Your task to perform on an android device: show emergency info Image 0: 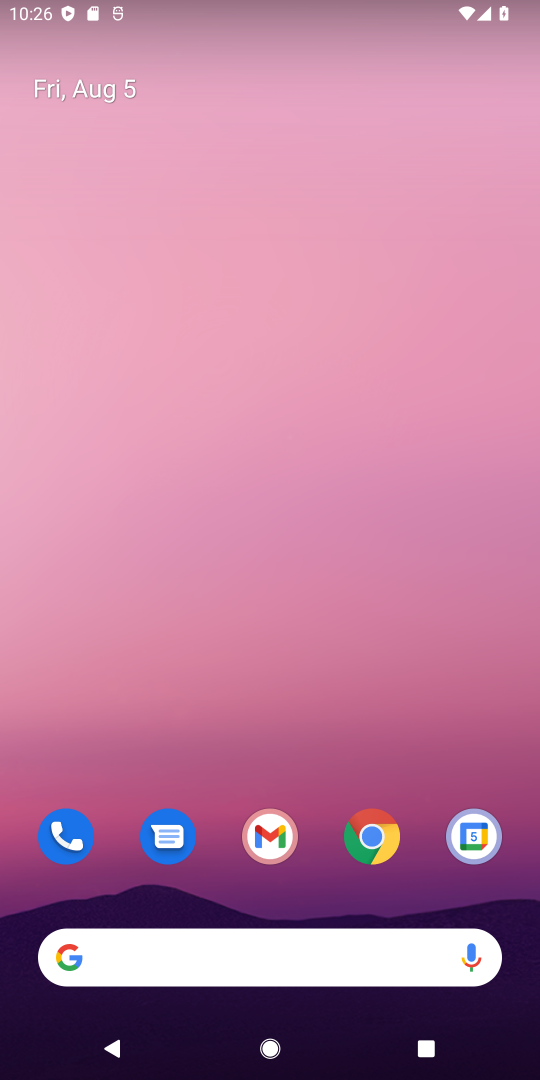
Step 0: drag from (409, 695) to (427, 61)
Your task to perform on an android device: show emergency info Image 1: 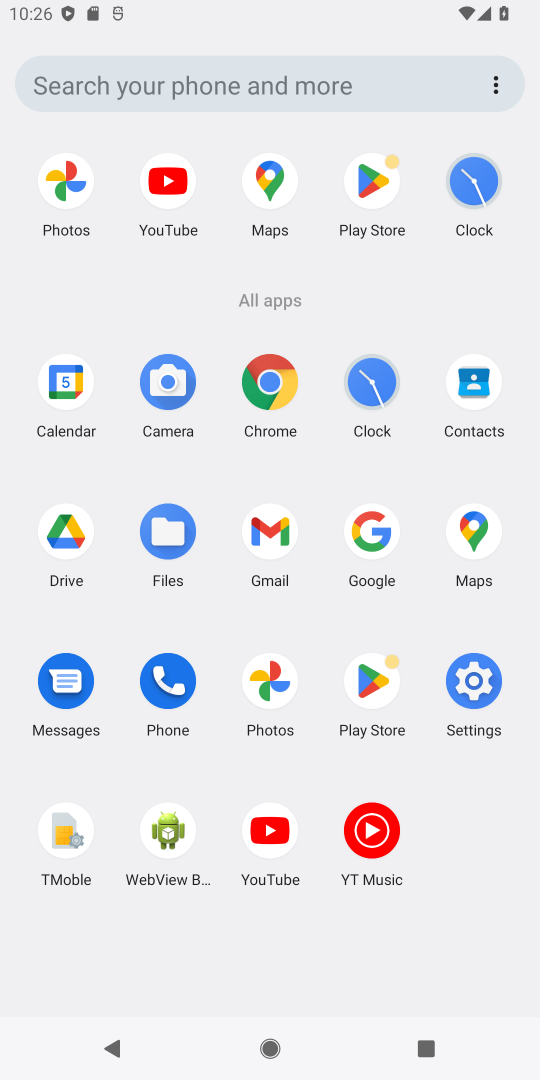
Step 1: click (483, 667)
Your task to perform on an android device: show emergency info Image 2: 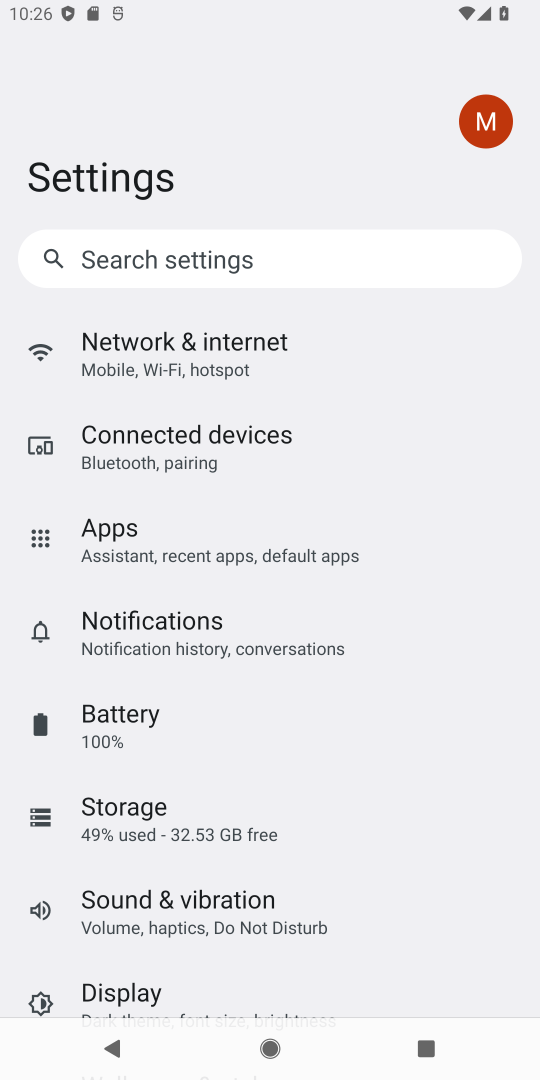
Step 2: drag from (318, 823) to (356, 233)
Your task to perform on an android device: show emergency info Image 3: 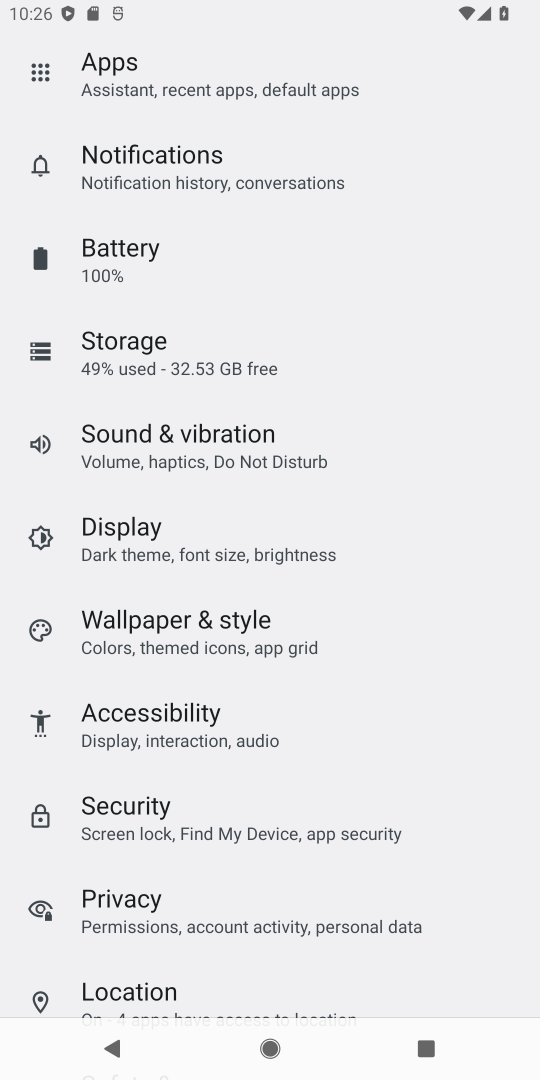
Step 3: drag from (406, 878) to (395, 237)
Your task to perform on an android device: show emergency info Image 4: 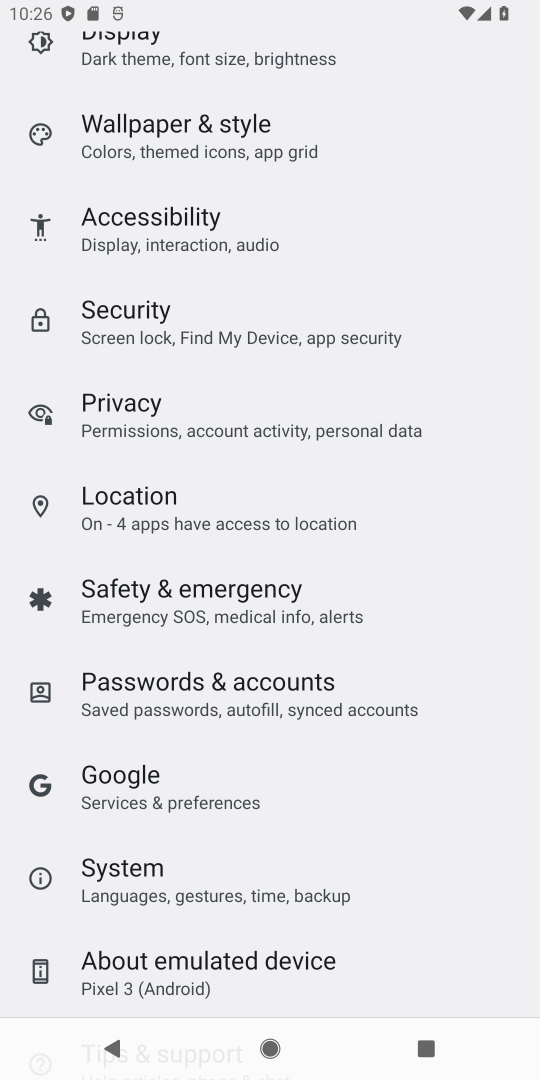
Step 4: click (216, 590)
Your task to perform on an android device: show emergency info Image 5: 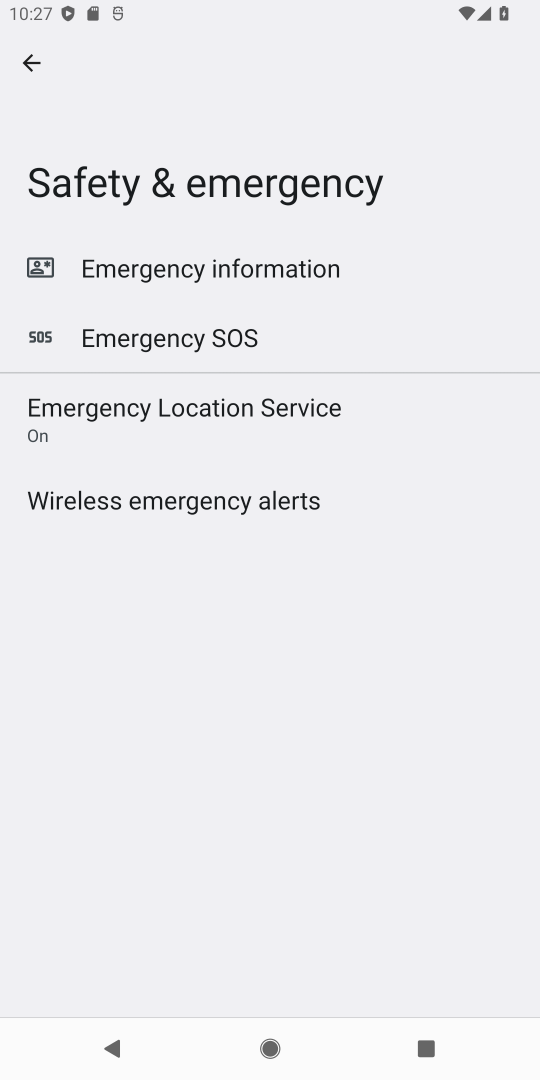
Step 5: click (294, 268)
Your task to perform on an android device: show emergency info Image 6: 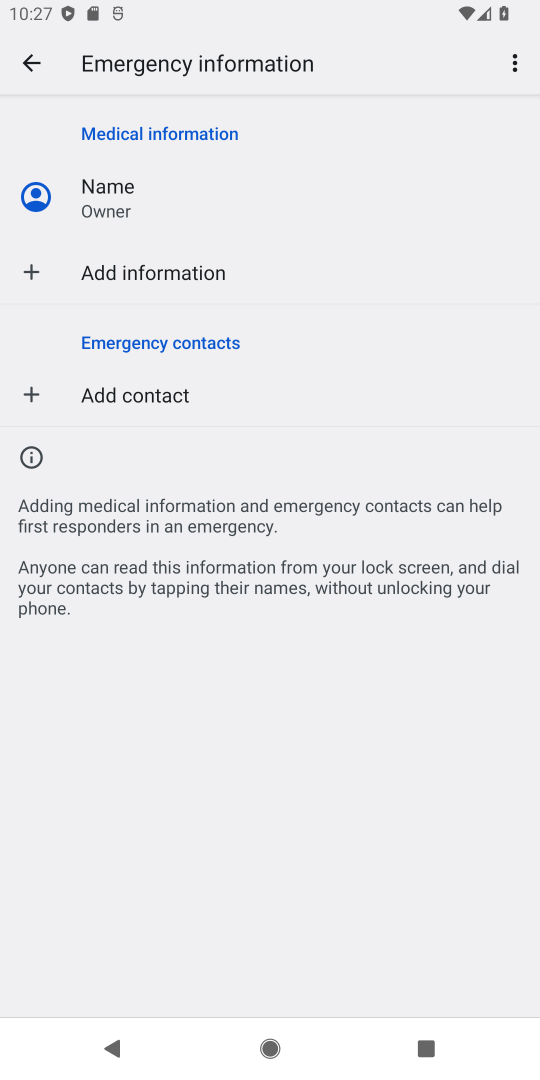
Step 6: task complete